Your task to perform on an android device: turn off javascript in the chrome app Image 0: 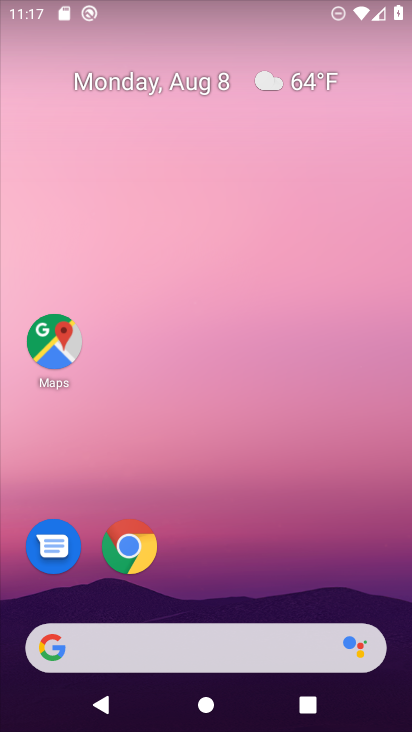
Step 0: press home button
Your task to perform on an android device: turn off javascript in the chrome app Image 1: 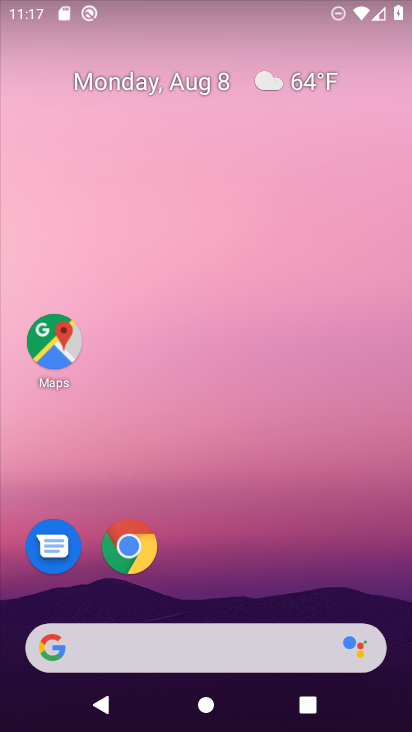
Step 1: drag from (218, 595) to (244, 27)
Your task to perform on an android device: turn off javascript in the chrome app Image 2: 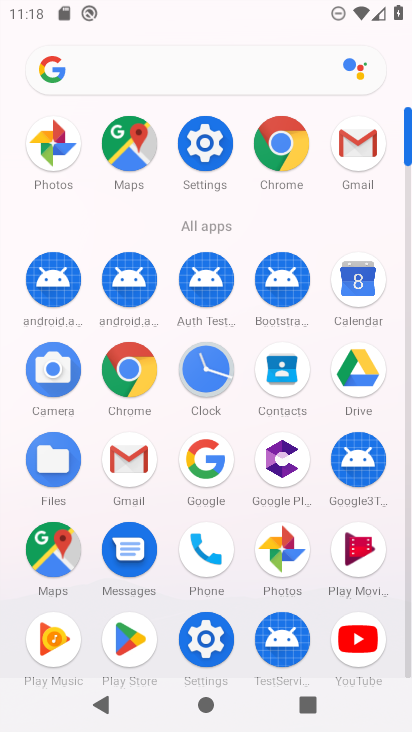
Step 2: click (131, 365)
Your task to perform on an android device: turn off javascript in the chrome app Image 3: 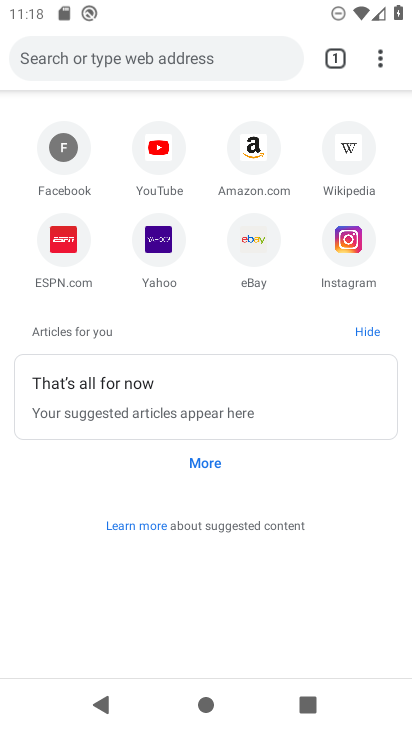
Step 3: click (380, 57)
Your task to perform on an android device: turn off javascript in the chrome app Image 4: 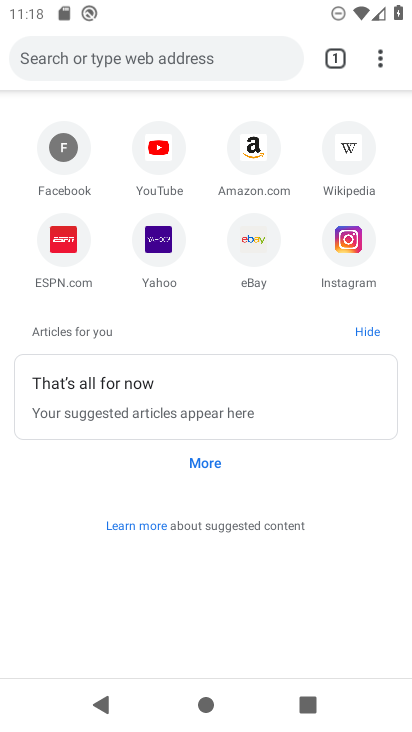
Step 4: click (378, 56)
Your task to perform on an android device: turn off javascript in the chrome app Image 5: 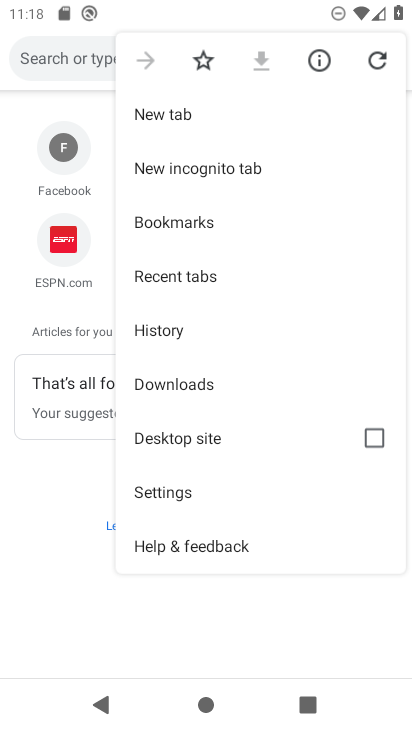
Step 5: click (192, 484)
Your task to perform on an android device: turn off javascript in the chrome app Image 6: 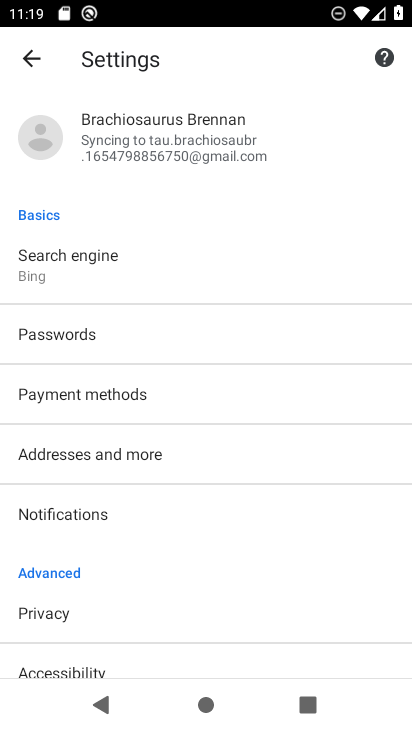
Step 6: drag from (157, 275) to (183, 183)
Your task to perform on an android device: turn off javascript in the chrome app Image 7: 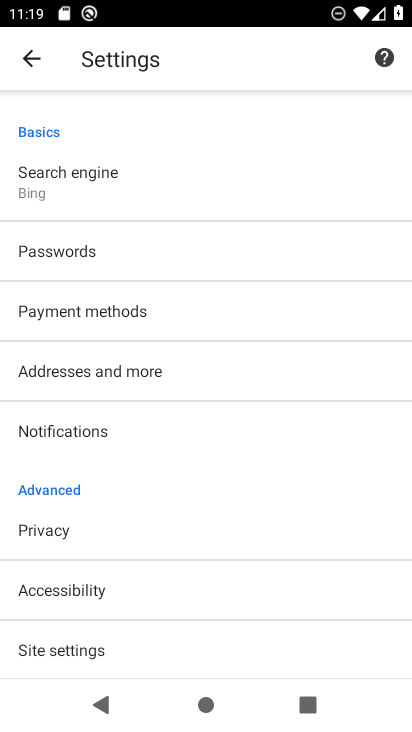
Step 7: click (121, 644)
Your task to perform on an android device: turn off javascript in the chrome app Image 8: 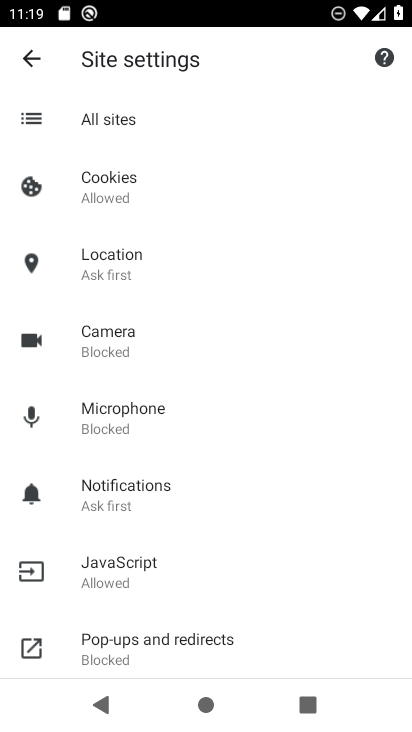
Step 8: click (142, 570)
Your task to perform on an android device: turn off javascript in the chrome app Image 9: 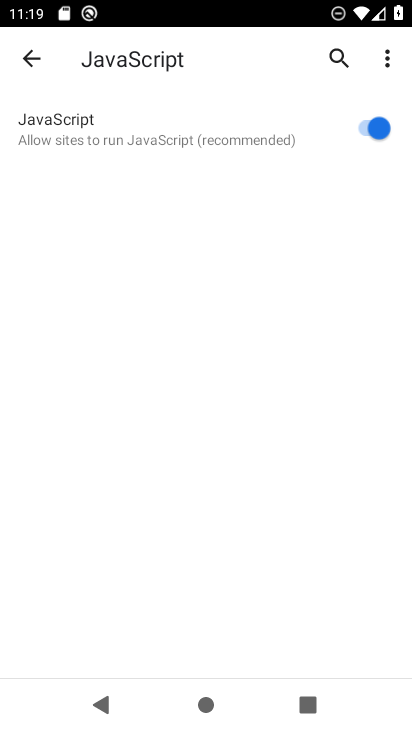
Step 9: click (369, 125)
Your task to perform on an android device: turn off javascript in the chrome app Image 10: 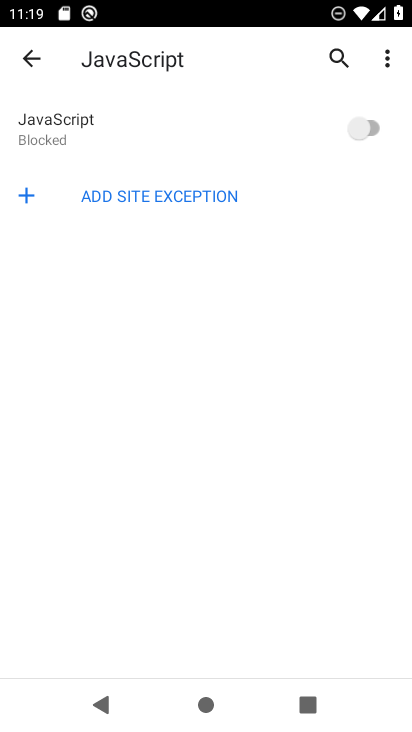
Step 10: task complete